Your task to perform on an android device: Open location settings Image 0: 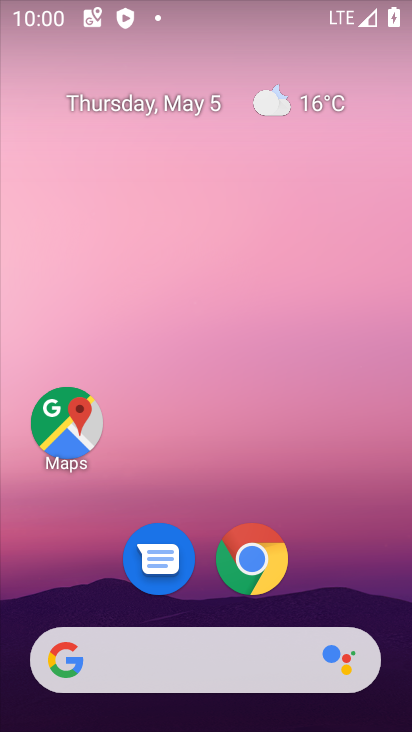
Step 0: drag from (213, 604) to (200, 2)
Your task to perform on an android device: Open location settings Image 1: 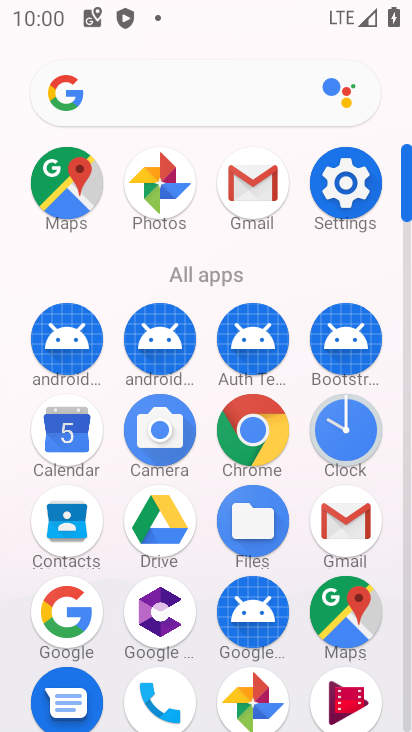
Step 1: click (363, 216)
Your task to perform on an android device: Open location settings Image 2: 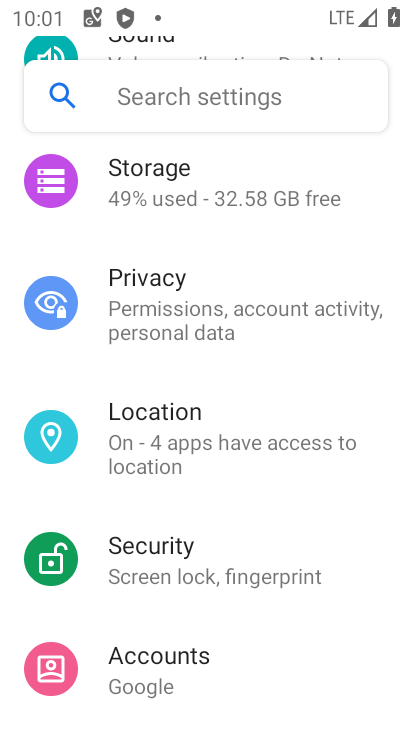
Step 2: click (218, 428)
Your task to perform on an android device: Open location settings Image 3: 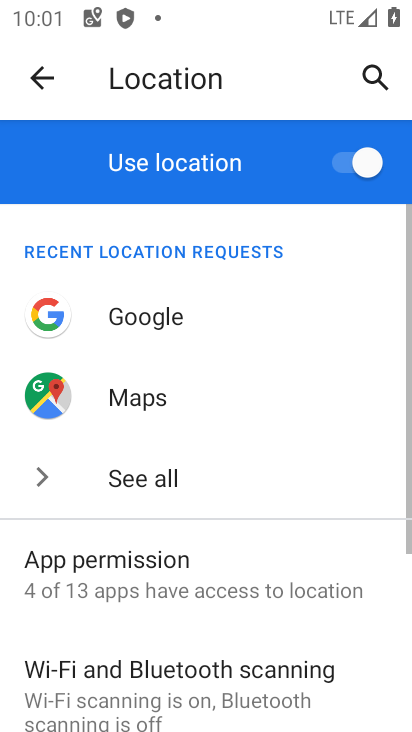
Step 3: task complete